Your task to perform on an android device: visit the assistant section in the google photos Image 0: 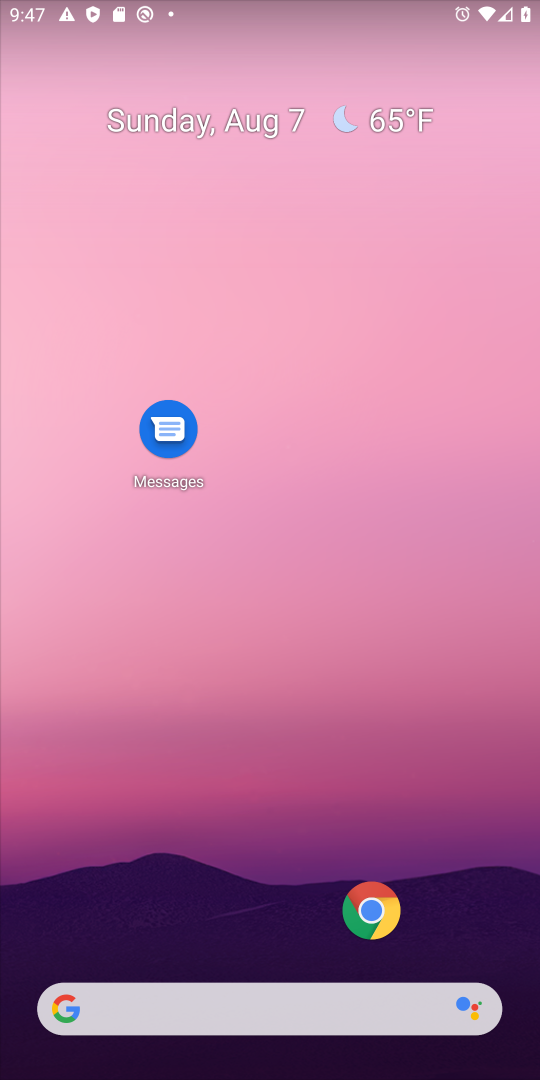
Step 0: drag from (127, 987) to (205, 377)
Your task to perform on an android device: visit the assistant section in the google photos Image 1: 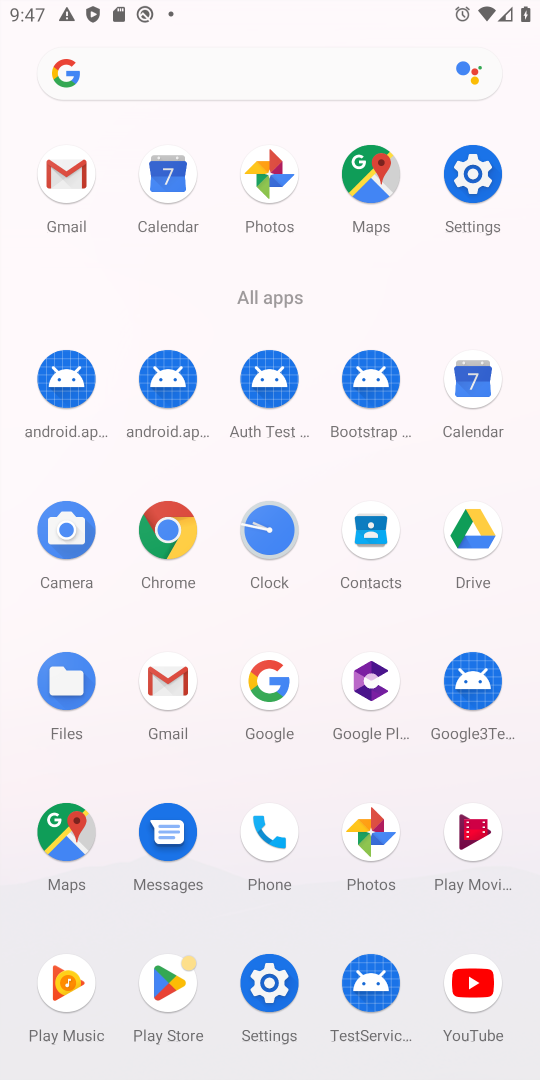
Step 1: click (276, 176)
Your task to perform on an android device: visit the assistant section in the google photos Image 2: 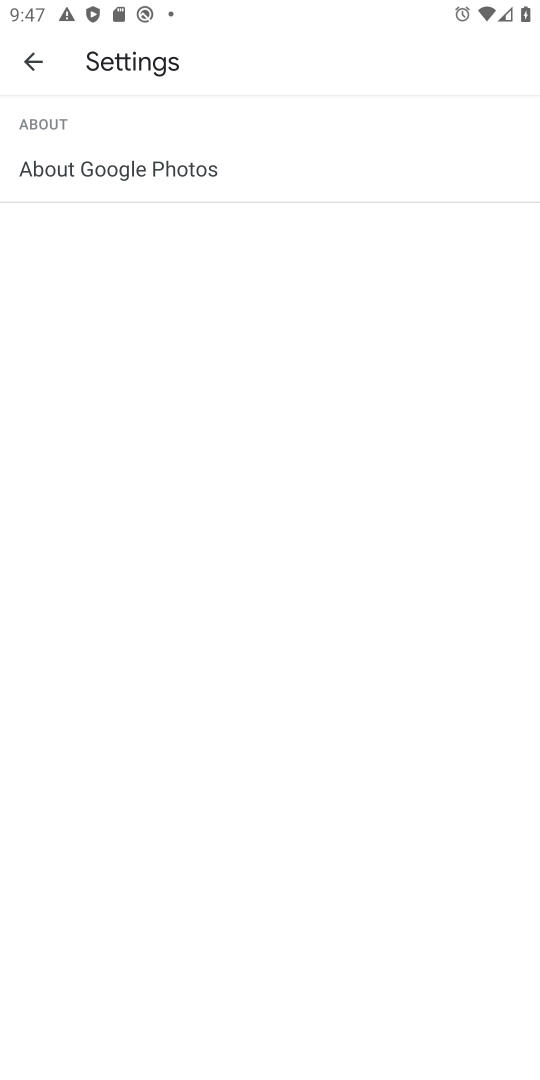
Step 2: click (40, 66)
Your task to perform on an android device: visit the assistant section in the google photos Image 3: 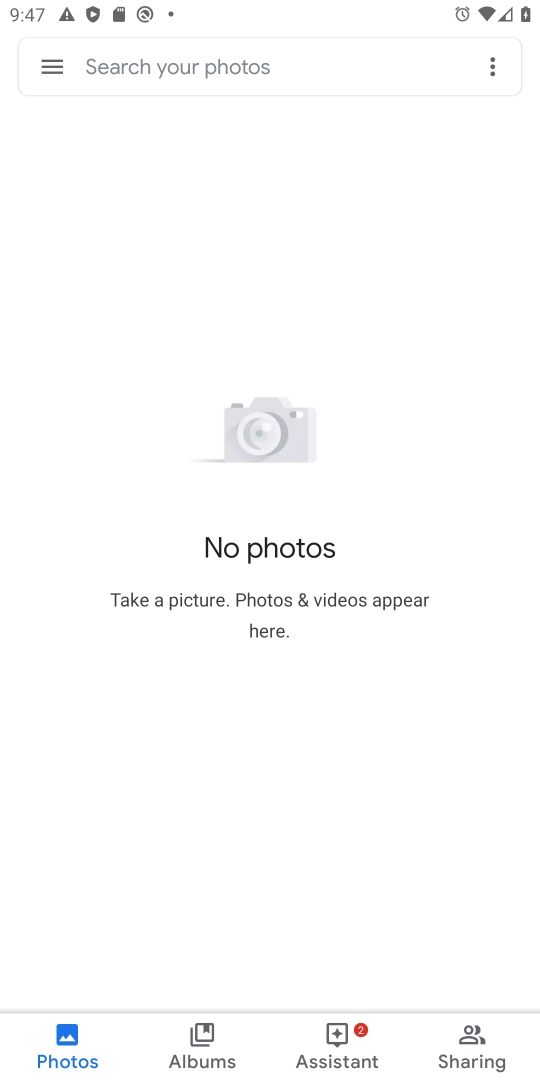
Step 3: click (333, 1046)
Your task to perform on an android device: visit the assistant section in the google photos Image 4: 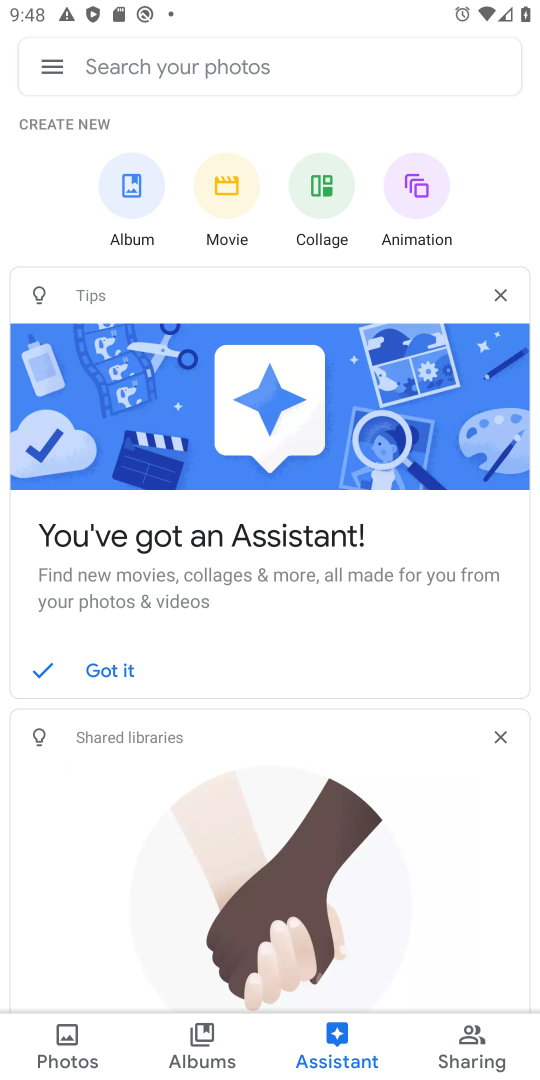
Step 4: task complete